Your task to perform on an android device: turn off smart reply in the gmail app Image 0: 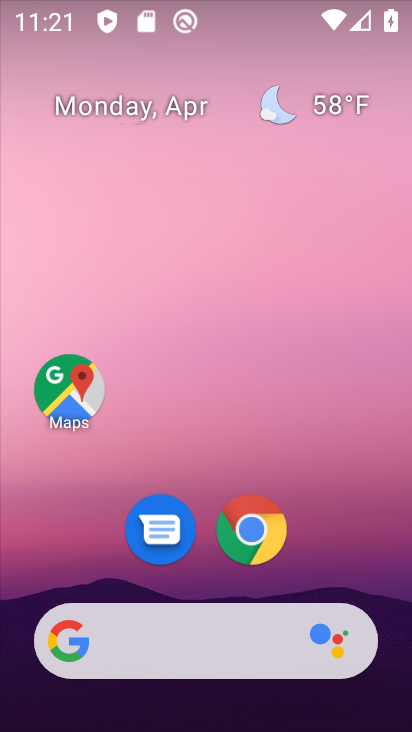
Step 0: drag from (378, 596) to (189, 59)
Your task to perform on an android device: turn off smart reply in the gmail app Image 1: 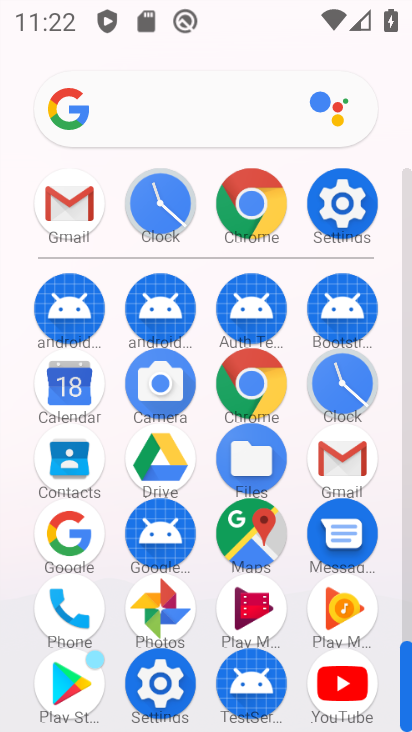
Step 1: click (328, 437)
Your task to perform on an android device: turn off smart reply in the gmail app Image 2: 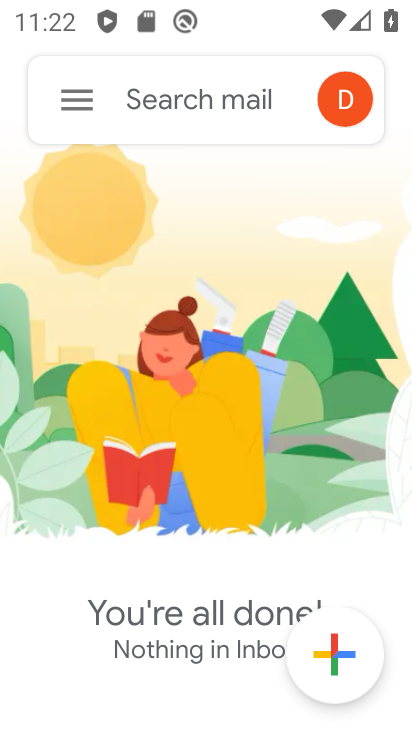
Step 2: click (61, 105)
Your task to perform on an android device: turn off smart reply in the gmail app Image 3: 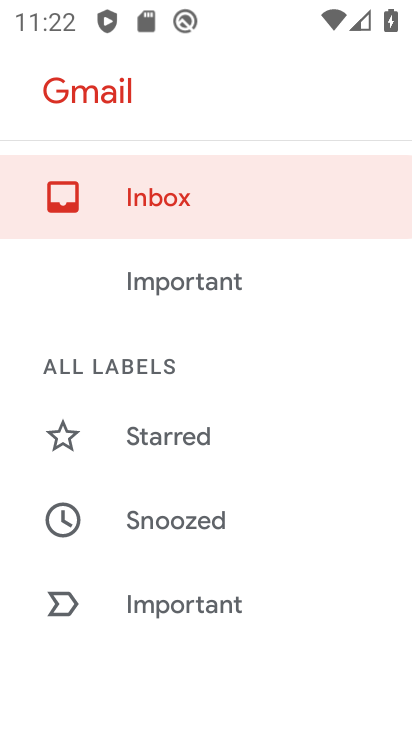
Step 3: drag from (167, 609) to (183, 109)
Your task to perform on an android device: turn off smart reply in the gmail app Image 4: 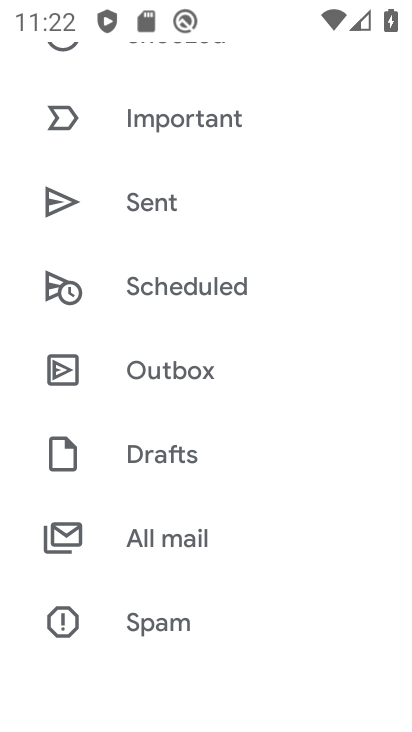
Step 4: drag from (137, 601) to (244, 134)
Your task to perform on an android device: turn off smart reply in the gmail app Image 5: 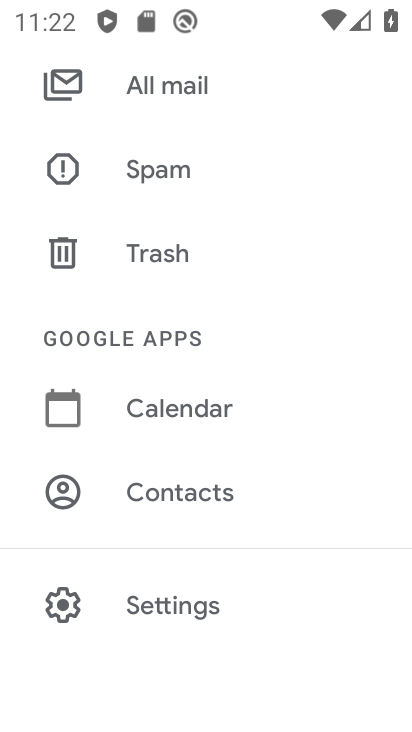
Step 5: click (164, 599)
Your task to perform on an android device: turn off smart reply in the gmail app Image 6: 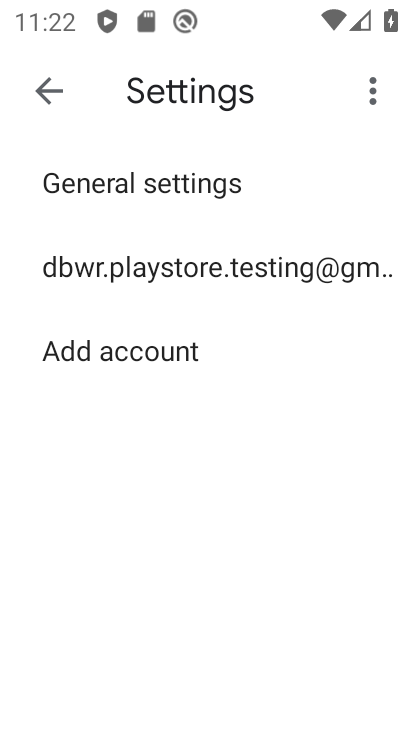
Step 6: click (174, 282)
Your task to perform on an android device: turn off smart reply in the gmail app Image 7: 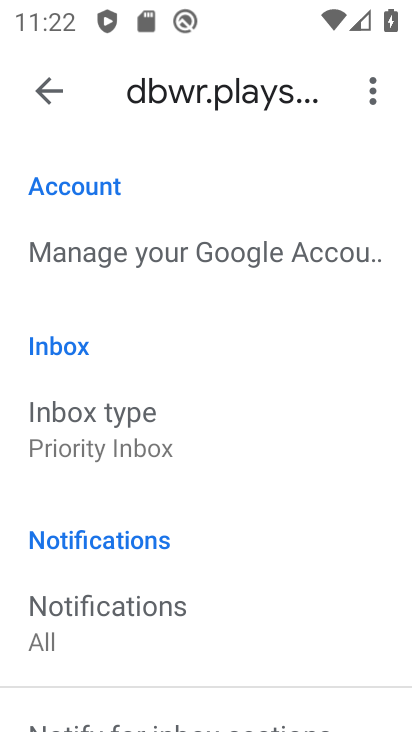
Step 7: drag from (107, 594) to (233, 176)
Your task to perform on an android device: turn off smart reply in the gmail app Image 8: 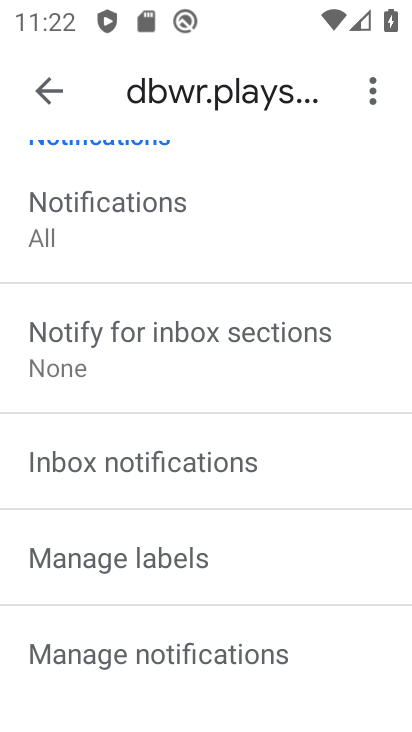
Step 8: drag from (93, 678) to (226, 202)
Your task to perform on an android device: turn off smart reply in the gmail app Image 9: 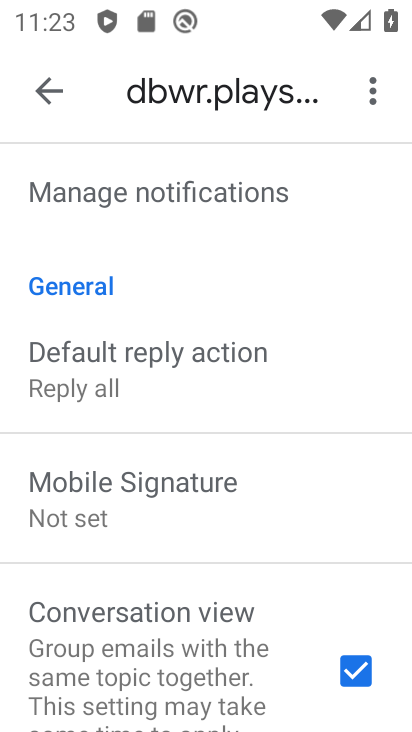
Step 9: drag from (112, 659) to (199, 234)
Your task to perform on an android device: turn off smart reply in the gmail app Image 10: 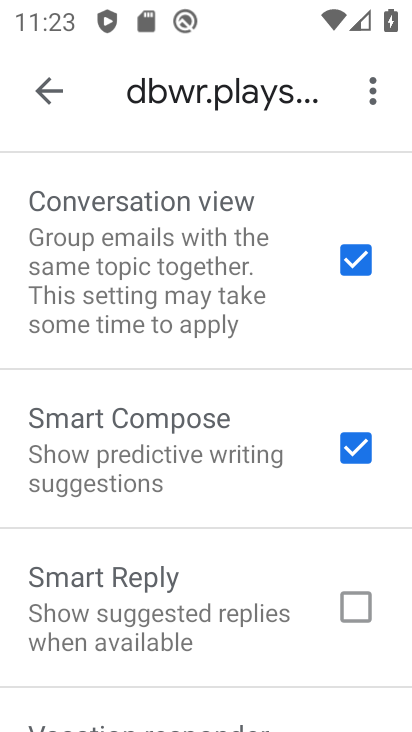
Step 10: click (226, 618)
Your task to perform on an android device: turn off smart reply in the gmail app Image 11: 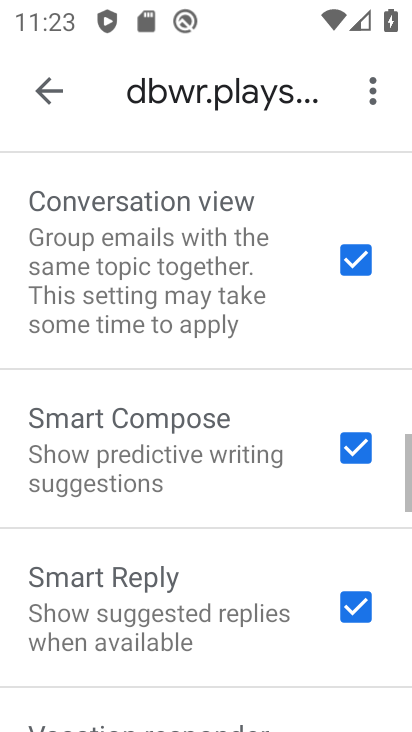
Step 11: click (226, 618)
Your task to perform on an android device: turn off smart reply in the gmail app Image 12: 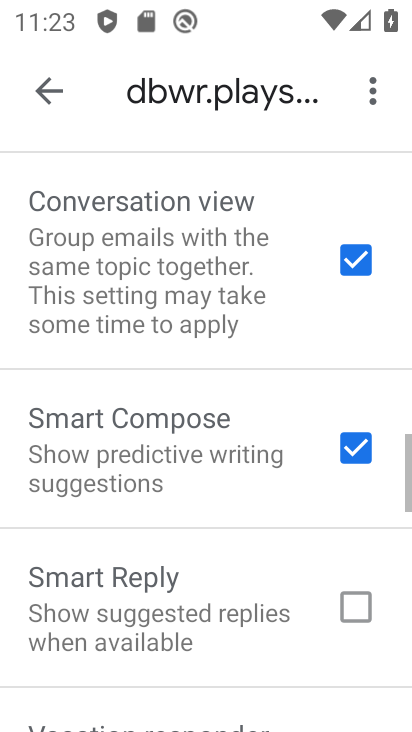
Step 12: task complete